Your task to perform on an android device: set an alarm Image 0: 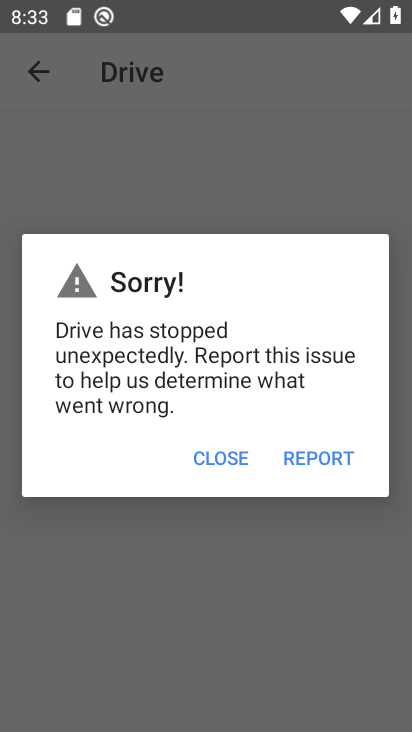
Step 0: click (344, 610)
Your task to perform on an android device: set an alarm Image 1: 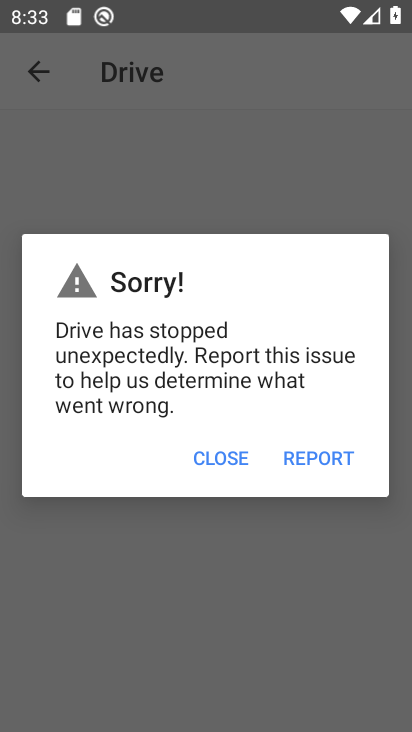
Step 1: press home button
Your task to perform on an android device: set an alarm Image 2: 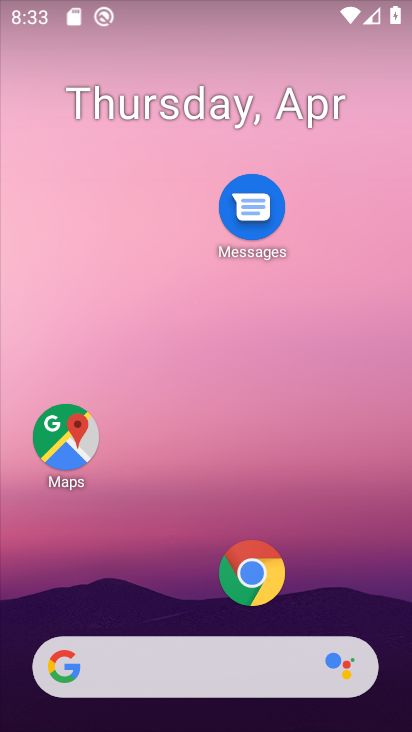
Step 2: drag from (193, 602) to (182, 68)
Your task to perform on an android device: set an alarm Image 3: 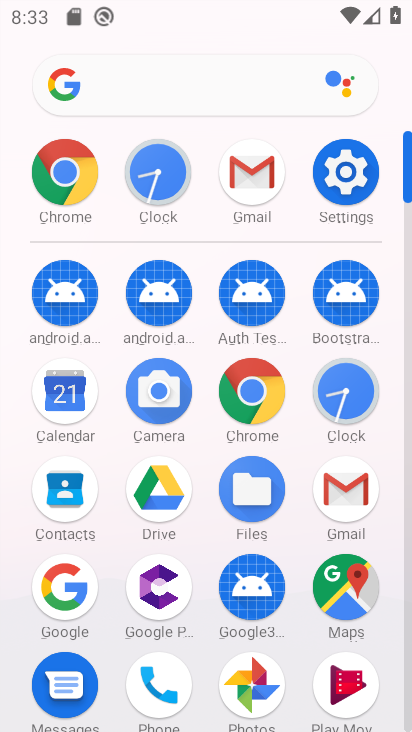
Step 3: click (341, 381)
Your task to perform on an android device: set an alarm Image 4: 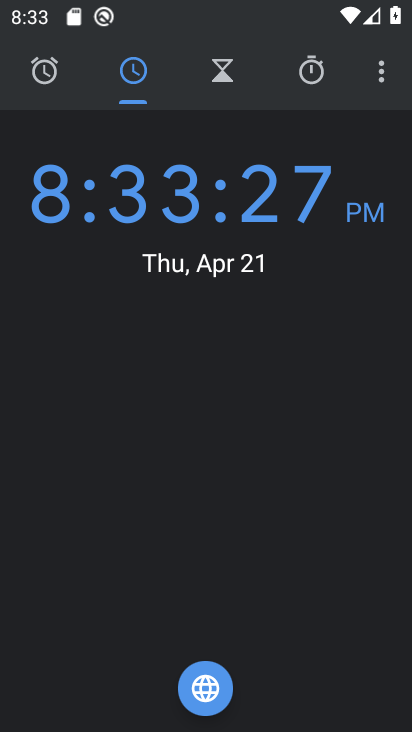
Step 4: click (45, 61)
Your task to perform on an android device: set an alarm Image 5: 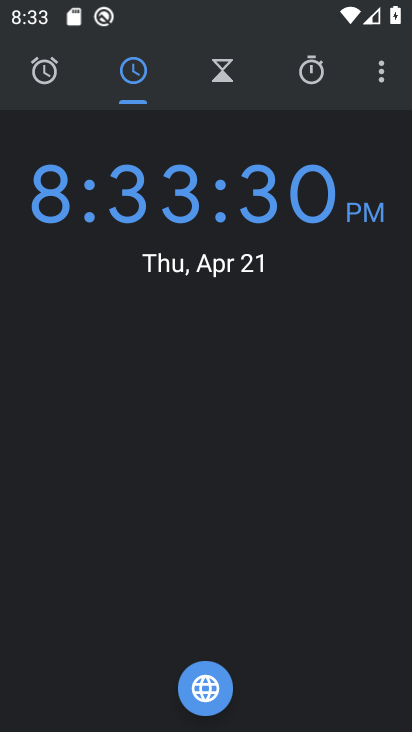
Step 5: click (38, 65)
Your task to perform on an android device: set an alarm Image 6: 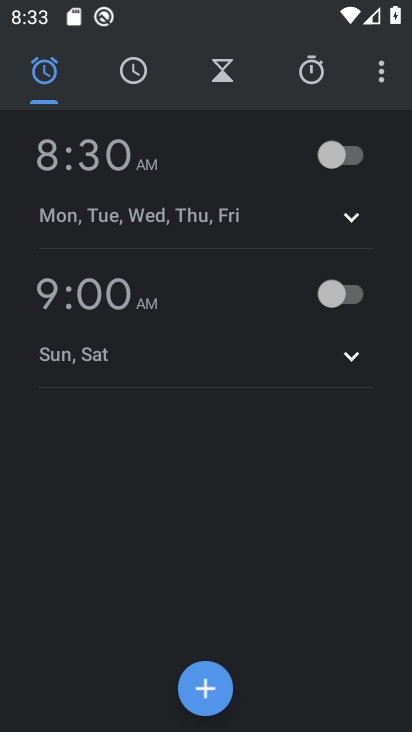
Step 6: click (171, 152)
Your task to perform on an android device: set an alarm Image 7: 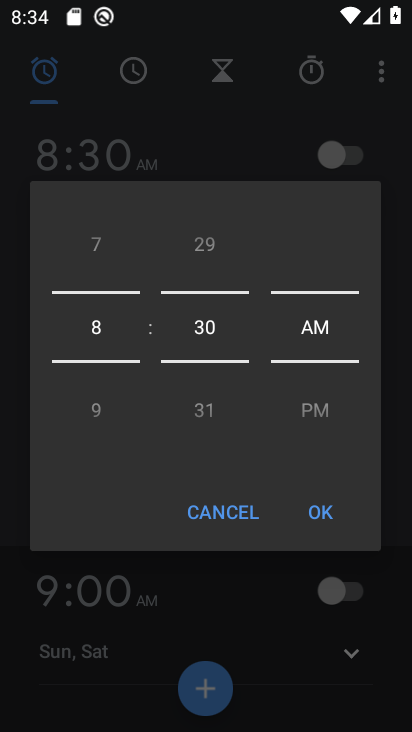
Step 7: click (322, 514)
Your task to perform on an android device: set an alarm Image 8: 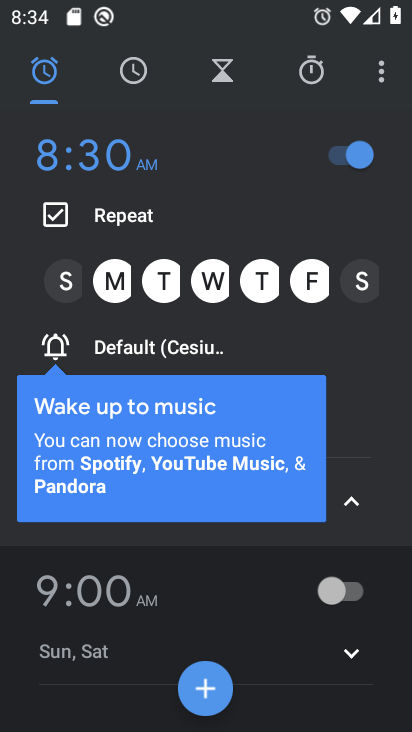
Step 8: task complete